Your task to perform on an android device: change the clock style Image 0: 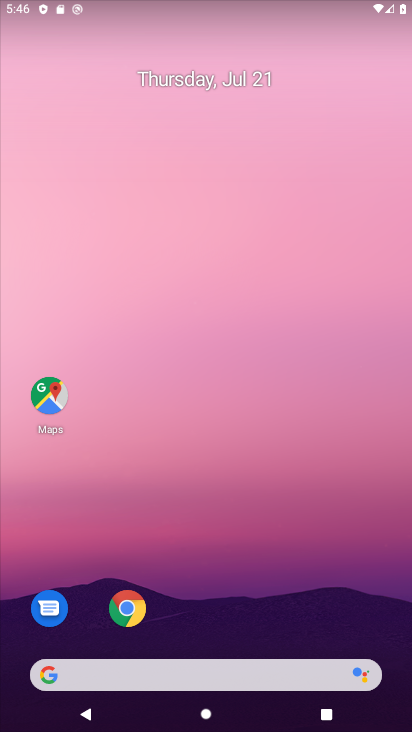
Step 0: drag from (164, 679) to (279, 188)
Your task to perform on an android device: change the clock style Image 1: 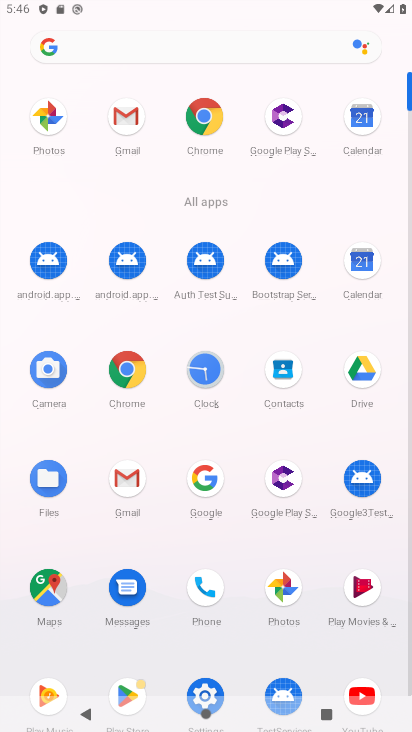
Step 1: click (206, 368)
Your task to perform on an android device: change the clock style Image 2: 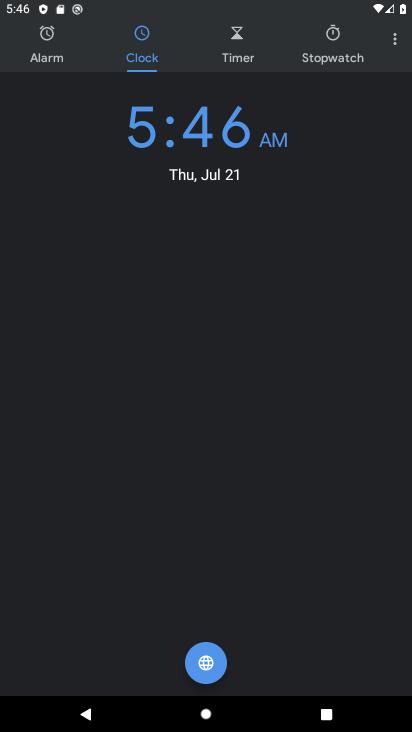
Step 2: click (395, 38)
Your task to perform on an android device: change the clock style Image 3: 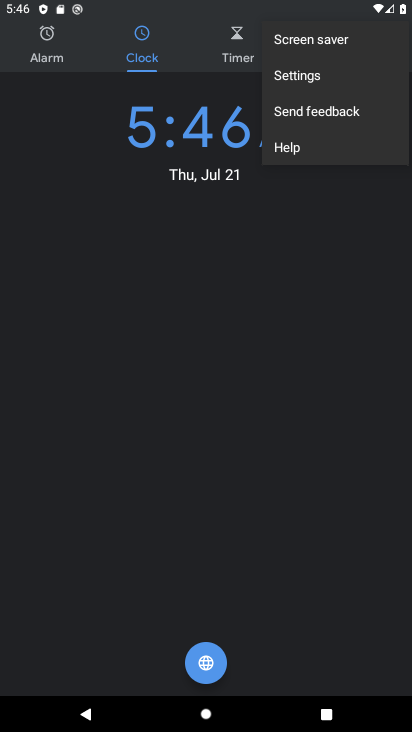
Step 3: click (307, 71)
Your task to perform on an android device: change the clock style Image 4: 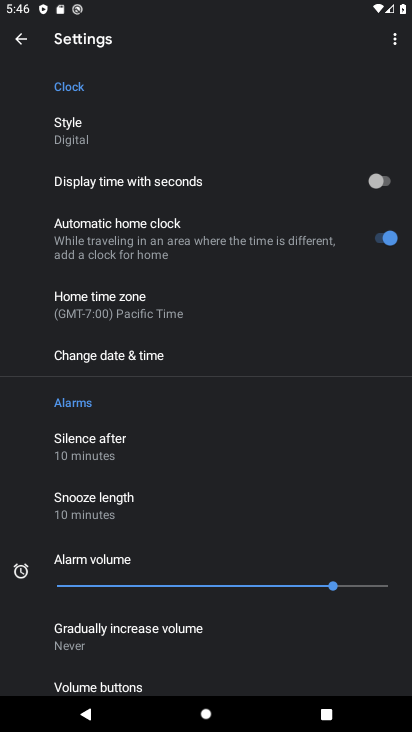
Step 4: click (66, 132)
Your task to perform on an android device: change the clock style Image 5: 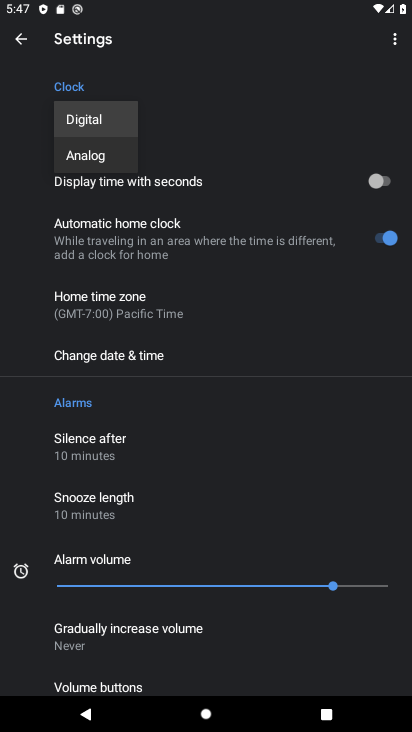
Step 5: click (81, 157)
Your task to perform on an android device: change the clock style Image 6: 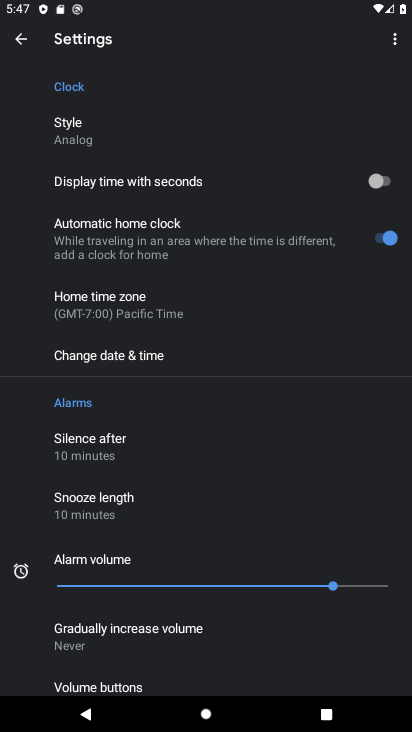
Step 6: task complete